Your task to perform on an android device: Go to sound settings Image 0: 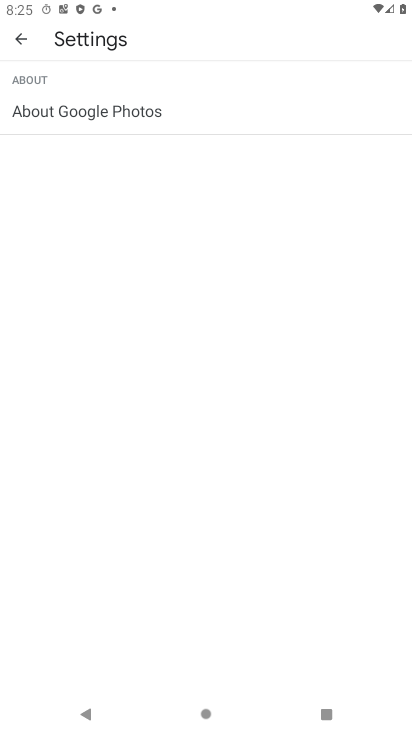
Step 0: click (25, 43)
Your task to perform on an android device: Go to sound settings Image 1: 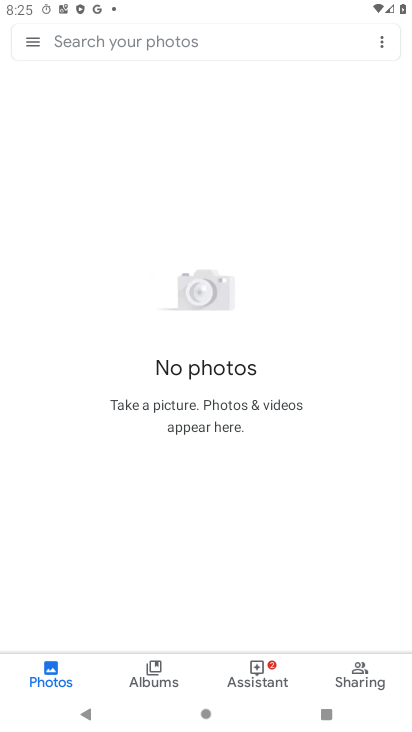
Step 1: press back button
Your task to perform on an android device: Go to sound settings Image 2: 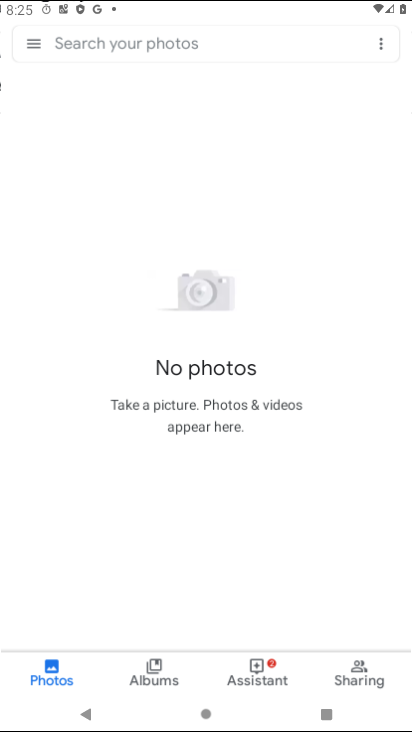
Step 2: press back button
Your task to perform on an android device: Go to sound settings Image 3: 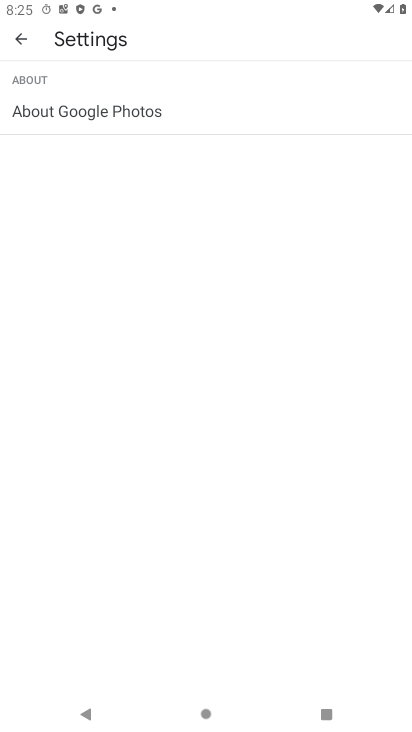
Step 3: click (15, 42)
Your task to perform on an android device: Go to sound settings Image 4: 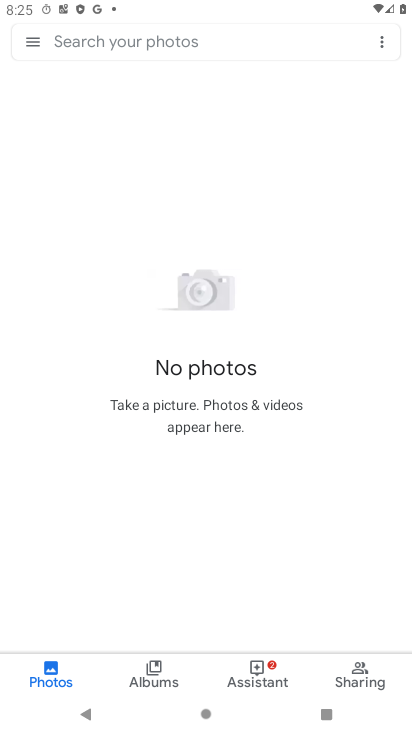
Step 4: press home button
Your task to perform on an android device: Go to sound settings Image 5: 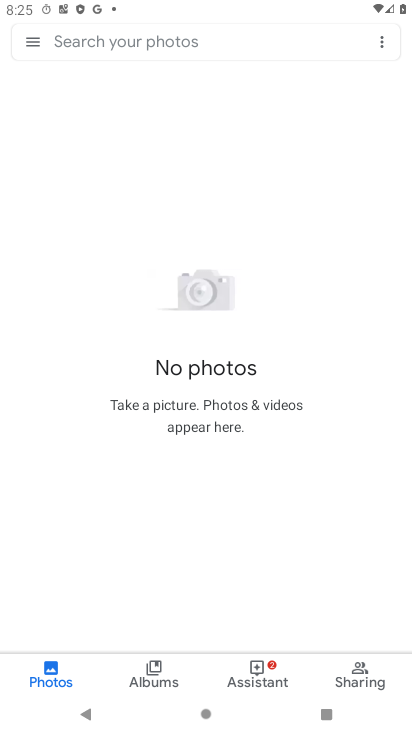
Step 5: press home button
Your task to perform on an android device: Go to sound settings Image 6: 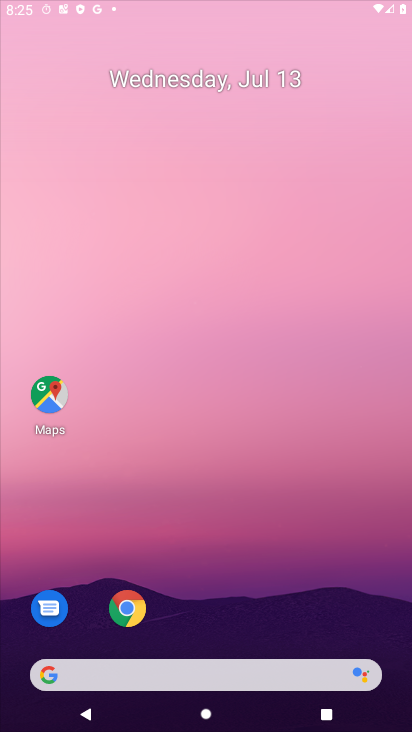
Step 6: press back button
Your task to perform on an android device: Go to sound settings Image 7: 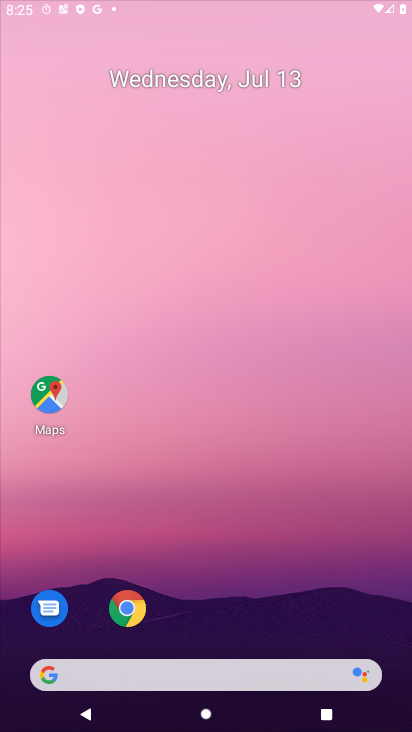
Step 7: press home button
Your task to perform on an android device: Go to sound settings Image 8: 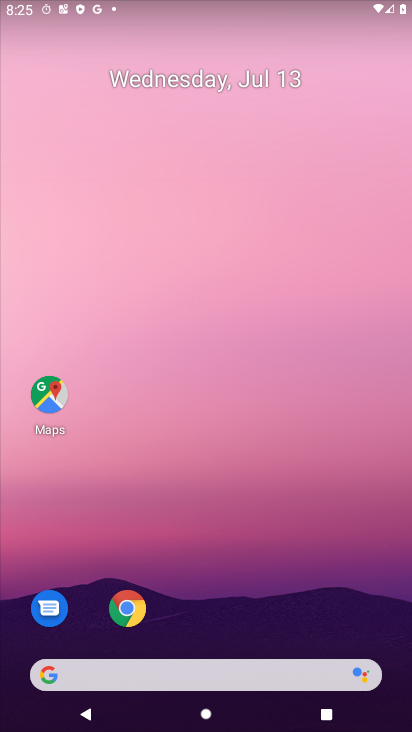
Step 8: press back button
Your task to perform on an android device: Go to sound settings Image 9: 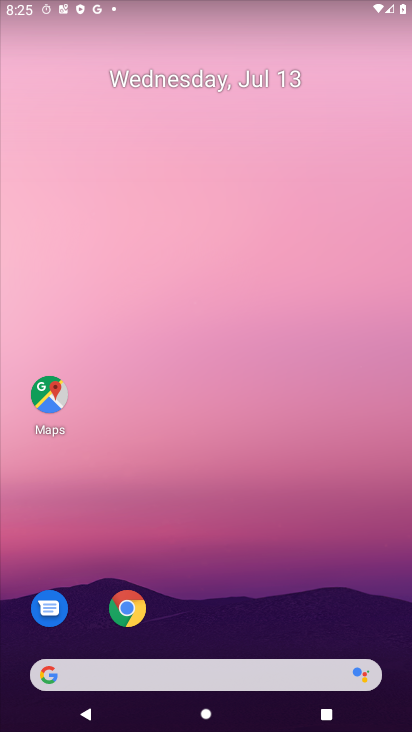
Step 9: drag from (165, 554) to (123, 40)
Your task to perform on an android device: Go to sound settings Image 10: 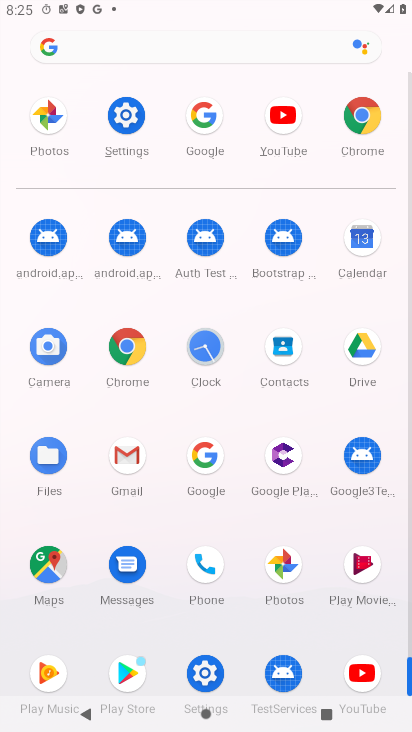
Step 10: click (128, 118)
Your task to perform on an android device: Go to sound settings Image 11: 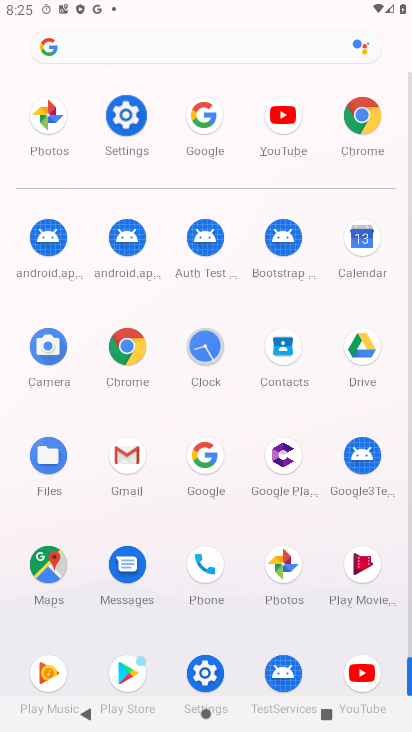
Step 11: click (128, 118)
Your task to perform on an android device: Go to sound settings Image 12: 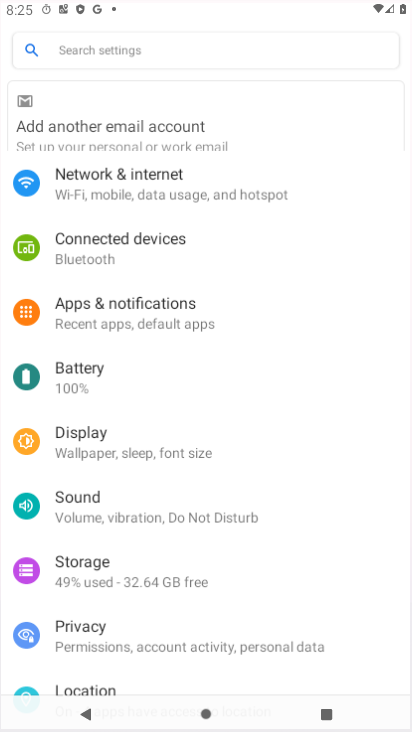
Step 12: click (128, 118)
Your task to perform on an android device: Go to sound settings Image 13: 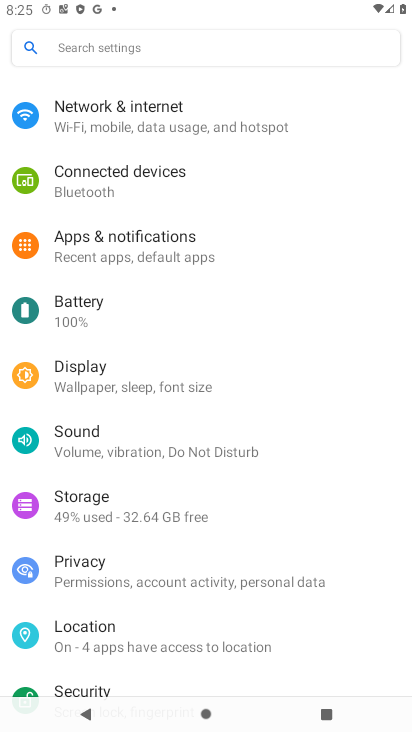
Step 13: click (128, 118)
Your task to perform on an android device: Go to sound settings Image 14: 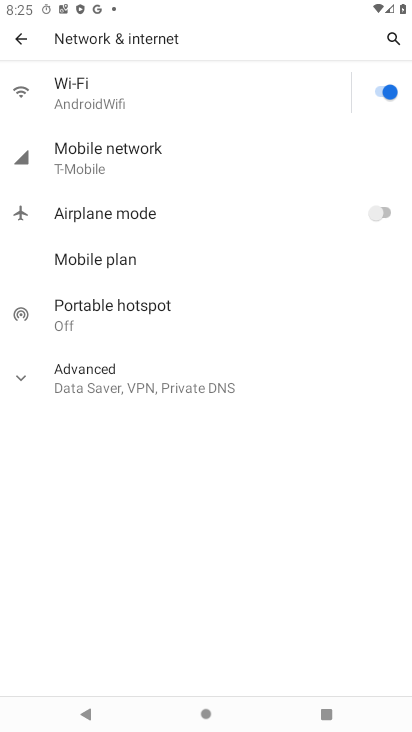
Step 14: click (19, 38)
Your task to perform on an android device: Go to sound settings Image 15: 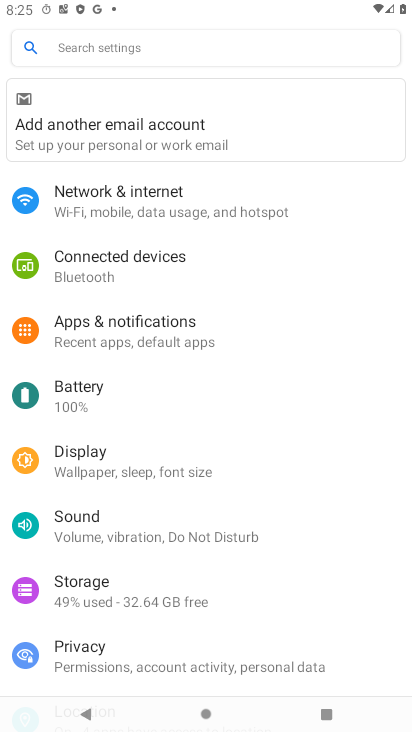
Step 15: click (86, 533)
Your task to perform on an android device: Go to sound settings Image 16: 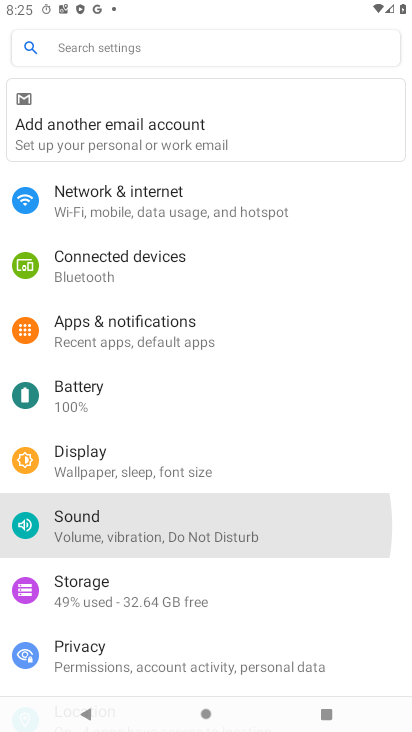
Step 16: click (86, 532)
Your task to perform on an android device: Go to sound settings Image 17: 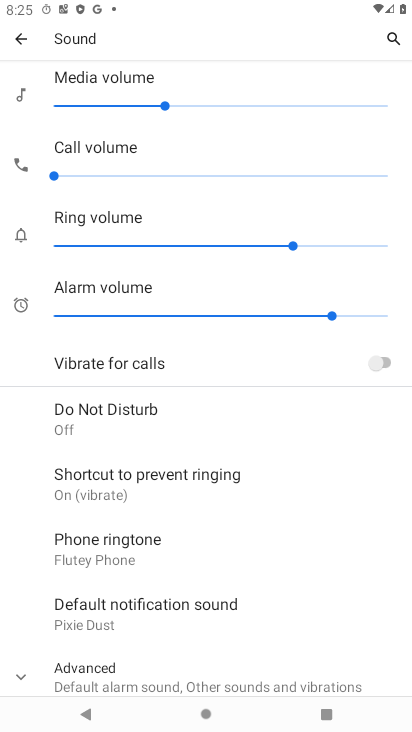
Step 17: task complete